Your task to perform on an android device: change notifications settings Image 0: 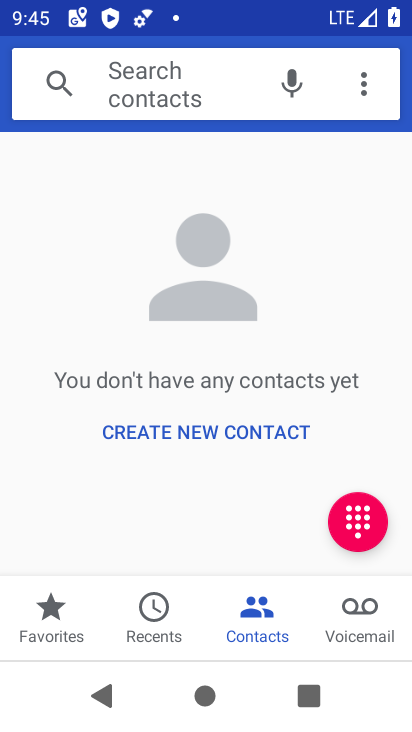
Step 0: press home button
Your task to perform on an android device: change notifications settings Image 1: 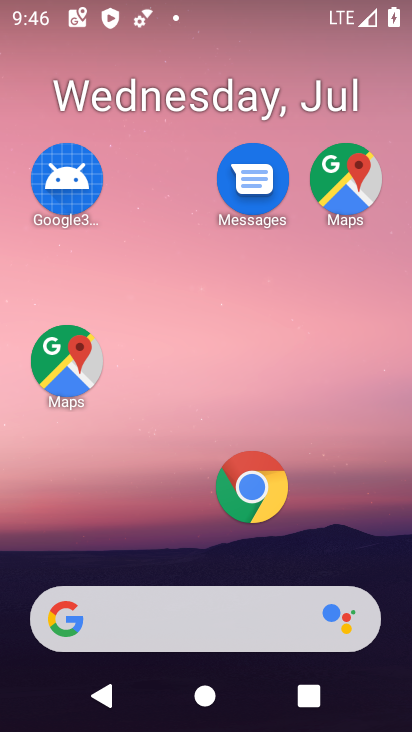
Step 1: drag from (273, 579) to (247, 27)
Your task to perform on an android device: change notifications settings Image 2: 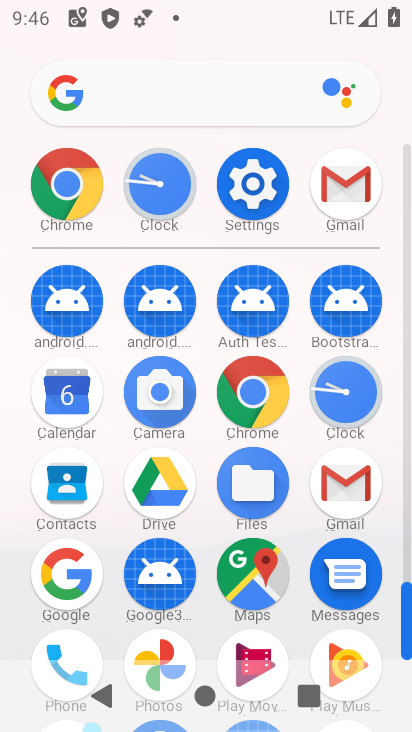
Step 2: click (263, 168)
Your task to perform on an android device: change notifications settings Image 3: 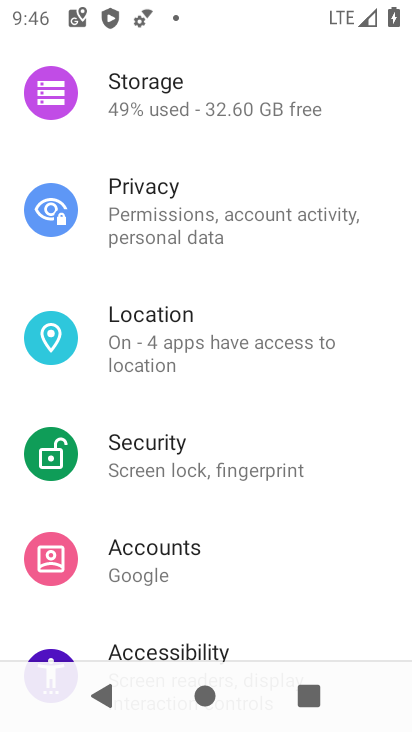
Step 3: drag from (263, 168) to (218, 535)
Your task to perform on an android device: change notifications settings Image 4: 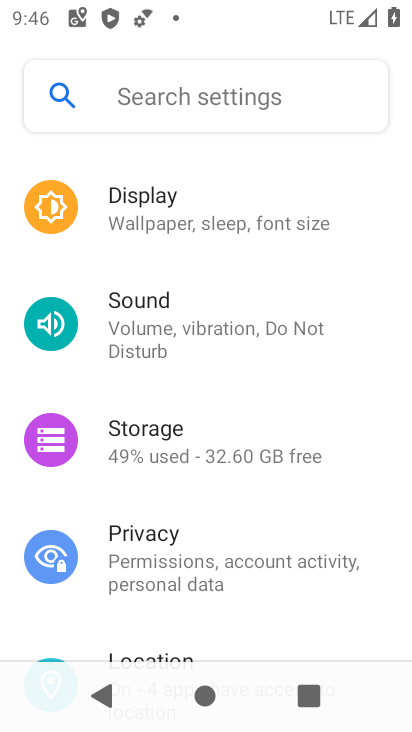
Step 4: drag from (218, 535) to (183, 657)
Your task to perform on an android device: change notifications settings Image 5: 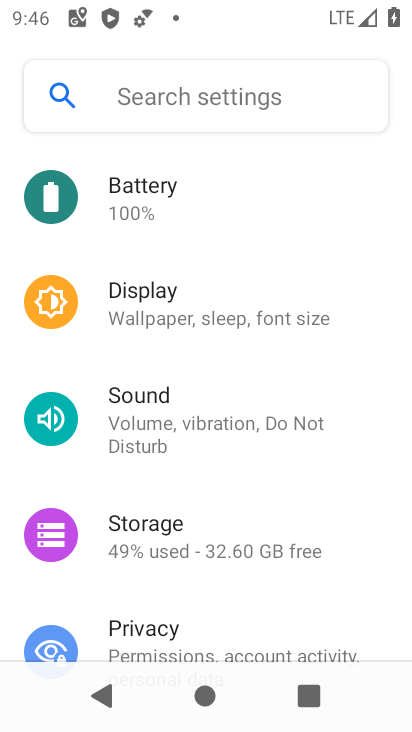
Step 5: drag from (164, 218) to (129, 558)
Your task to perform on an android device: change notifications settings Image 6: 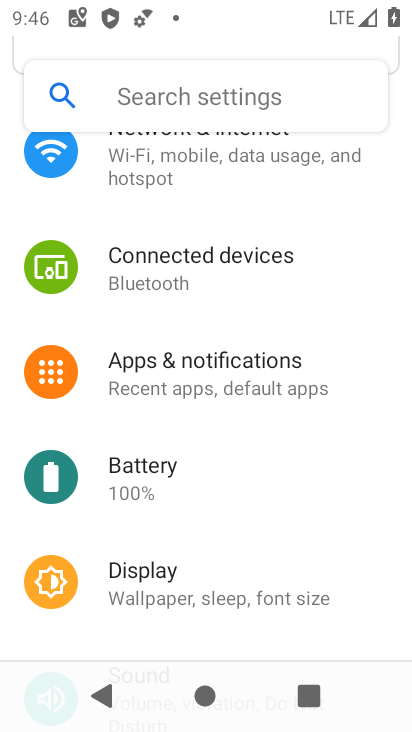
Step 6: click (141, 382)
Your task to perform on an android device: change notifications settings Image 7: 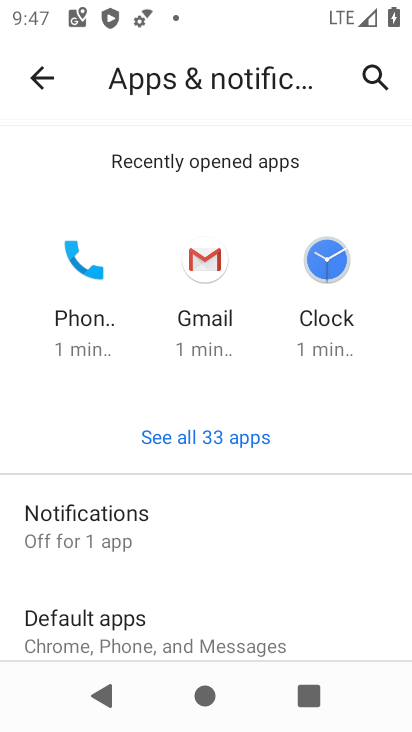
Step 7: click (137, 538)
Your task to perform on an android device: change notifications settings Image 8: 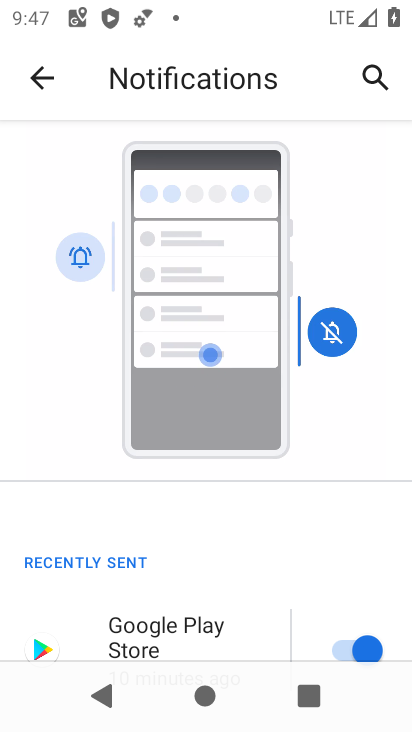
Step 8: task complete